Your task to perform on an android device: Show me the alarms in the clock app Image 0: 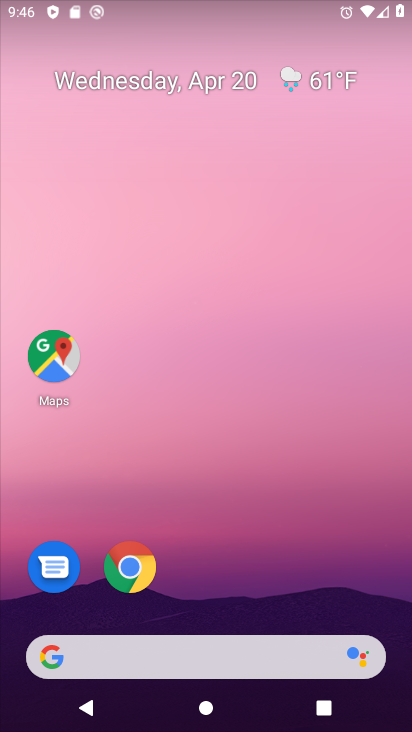
Step 0: drag from (223, 570) to (237, 194)
Your task to perform on an android device: Show me the alarms in the clock app Image 1: 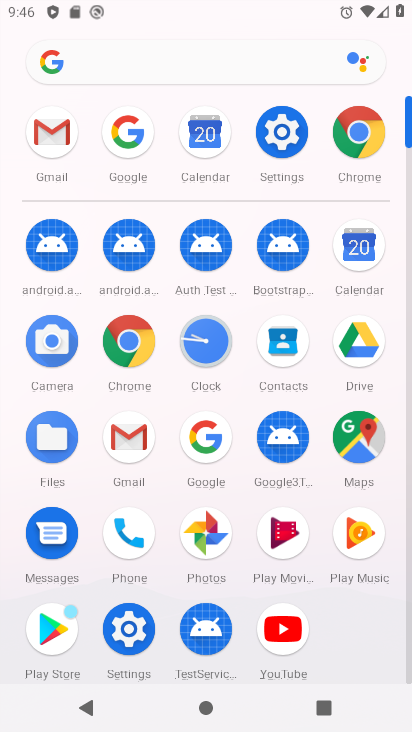
Step 1: click (199, 338)
Your task to perform on an android device: Show me the alarms in the clock app Image 2: 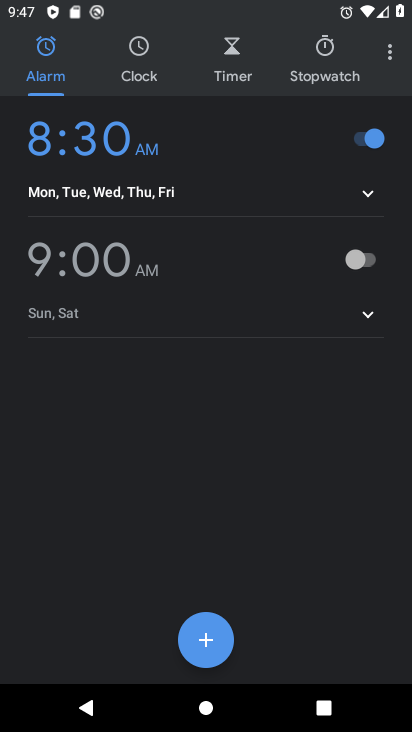
Step 2: click (239, 57)
Your task to perform on an android device: Show me the alarms in the clock app Image 3: 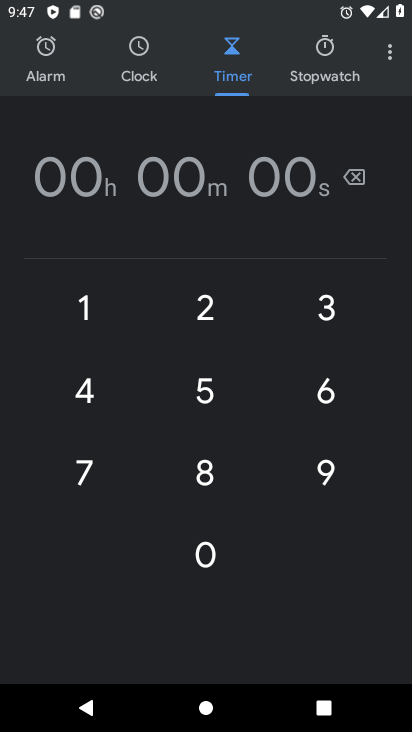
Step 3: click (56, 57)
Your task to perform on an android device: Show me the alarms in the clock app Image 4: 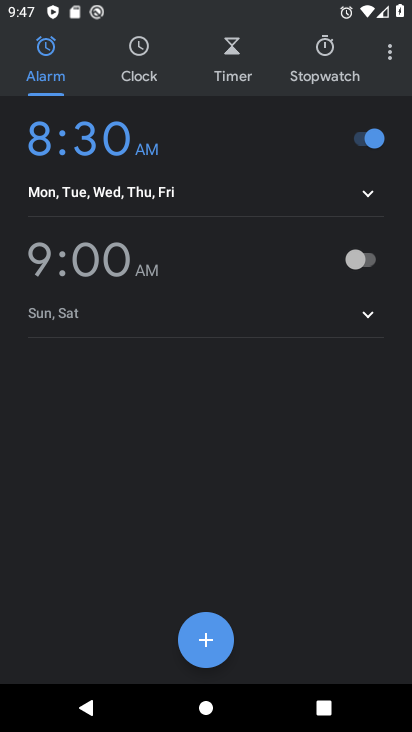
Step 4: task complete